Your task to perform on an android device: See recent photos Image 0: 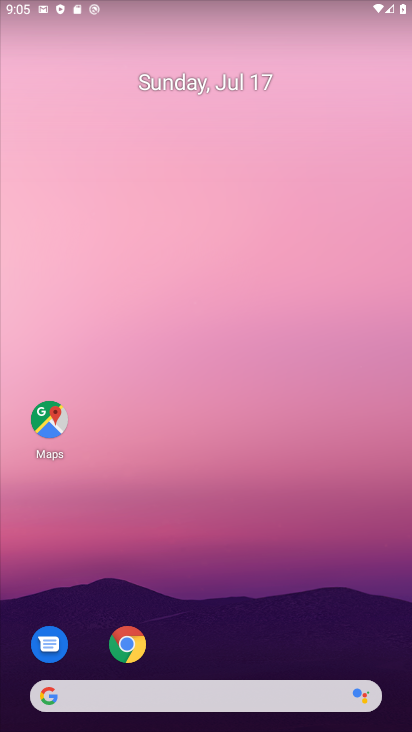
Step 0: drag from (200, 682) to (157, 2)
Your task to perform on an android device: See recent photos Image 1: 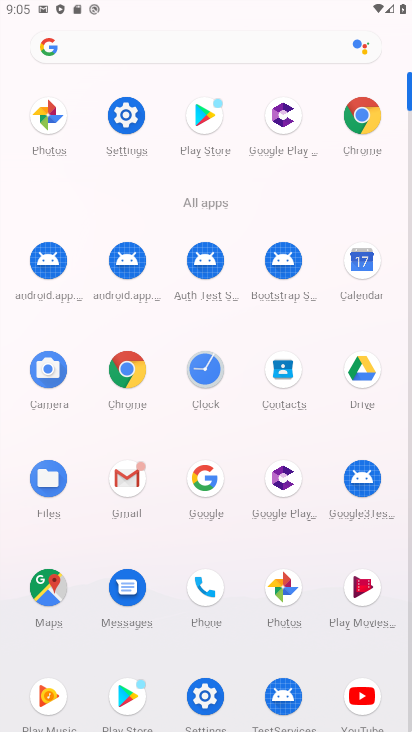
Step 1: click (290, 573)
Your task to perform on an android device: See recent photos Image 2: 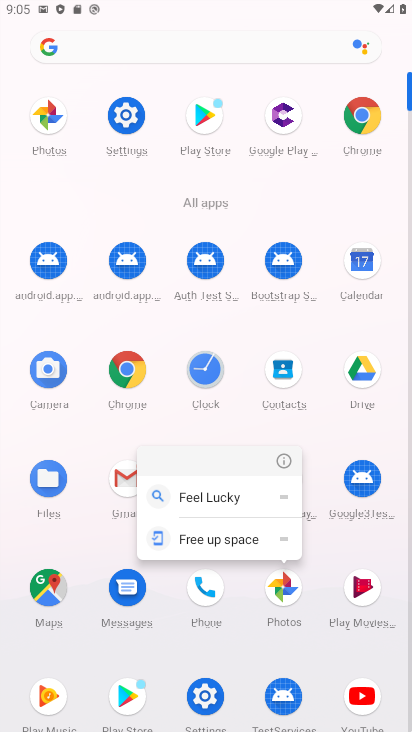
Step 2: click (294, 591)
Your task to perform on an android device: See recent photos Image 3: 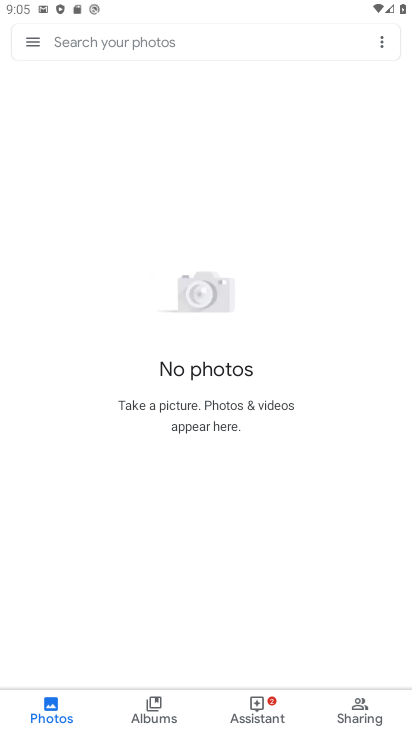
Step 3: task complete